Your task to perform on an android device: Open internet settings Image 0: 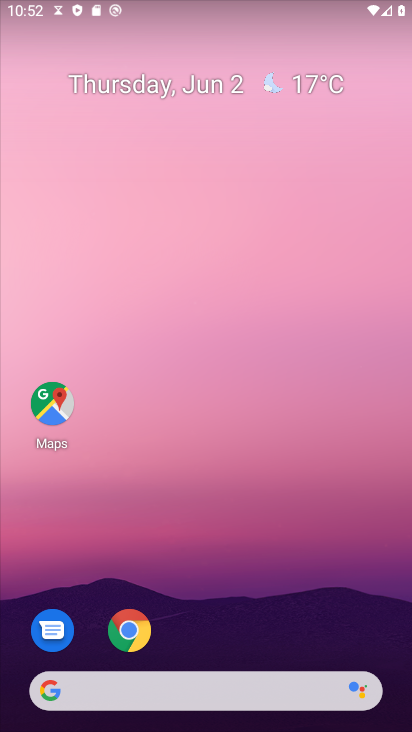
Step 0: drag from (240, 634) to (275, 151)
Your task to perform on an android device: Open internet settings Image 1: 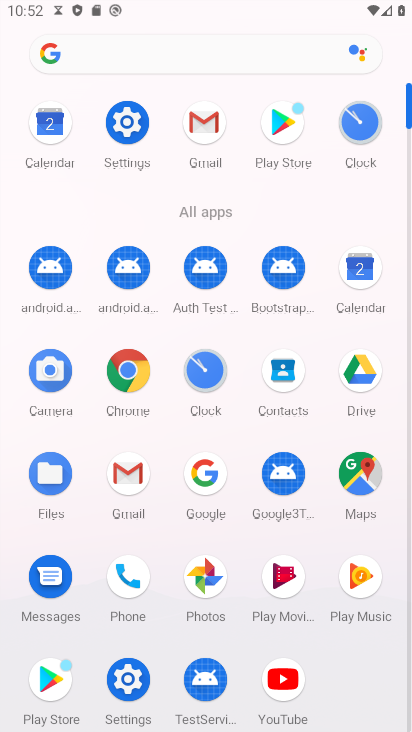
Step 1: click (124, 138)
Your task to perform on an android device: Open internet settings Image 2: 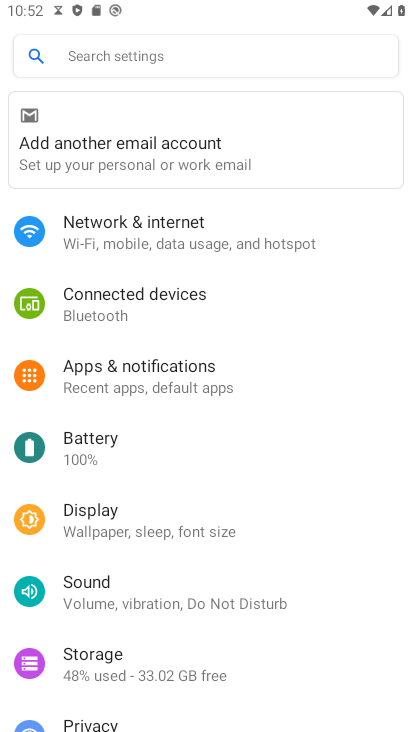
Step 2: click (159, 257)
Your task to perform on an android device: Open internet settings Image 3: 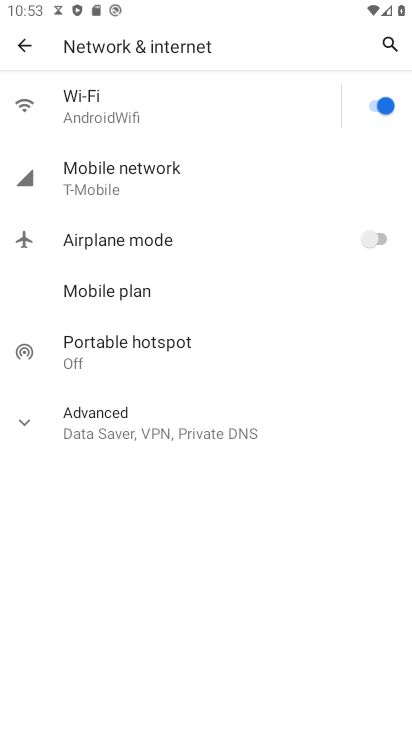
Step 3: task complete